Your task to perform on an android device: star an email in the gmail app Image 0: 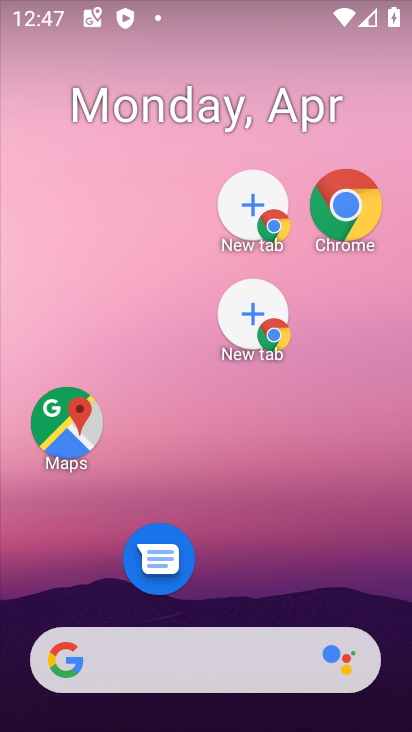
Step 0: drag from (208, 410) to (188, 172)
Your task to perform on an android device: star an email in the gmail app Image 1: 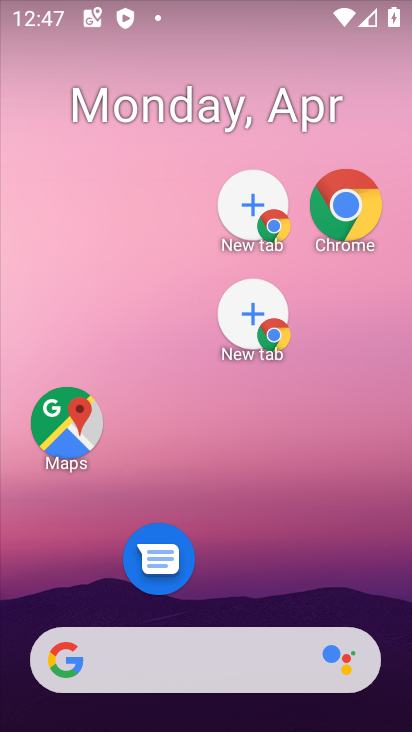
Step 1: drag from (214, 411) to (183, 45)
Your task to perform on an android device: star an email in the gmail app Image 2: 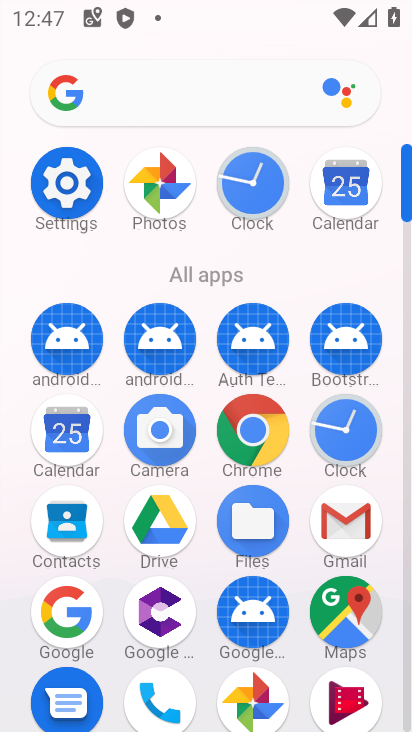
Step 2: click (325, 533)
Your task to perform on an android device: star an email in the gmail app Image 3: 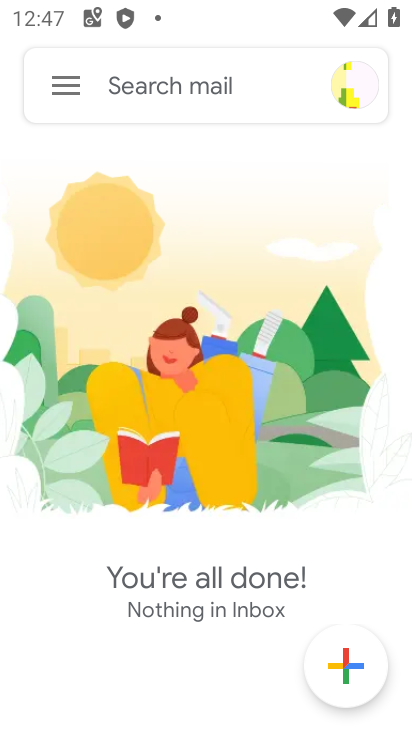
Step 3: click (68, 98)
Your task to perform on an android device: star an email in the gmail app Image 4: 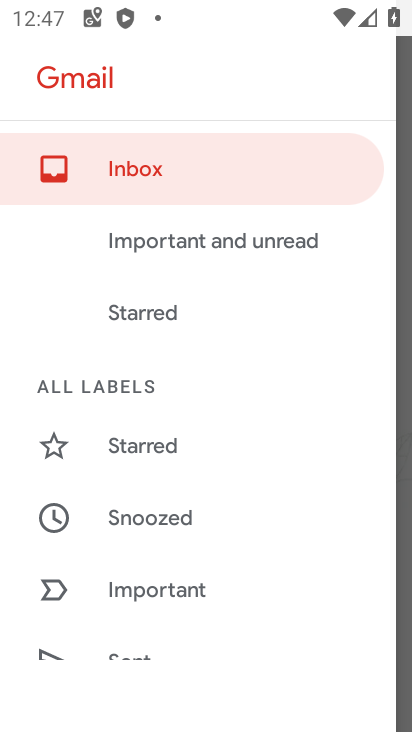
Step 4: drag from (159, 554) to (213, 173)
Your task to perform on an android device: star an email in the gmail app Image 5: 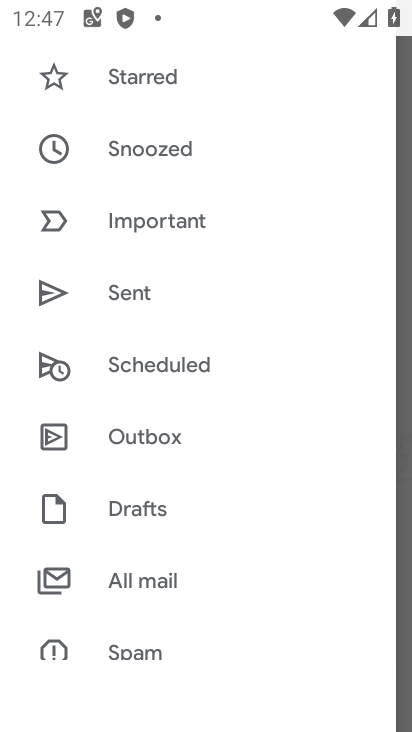
Step 5: click (172, 572)
Your task to perform on an android device: star an email in the gmail app Image 6: 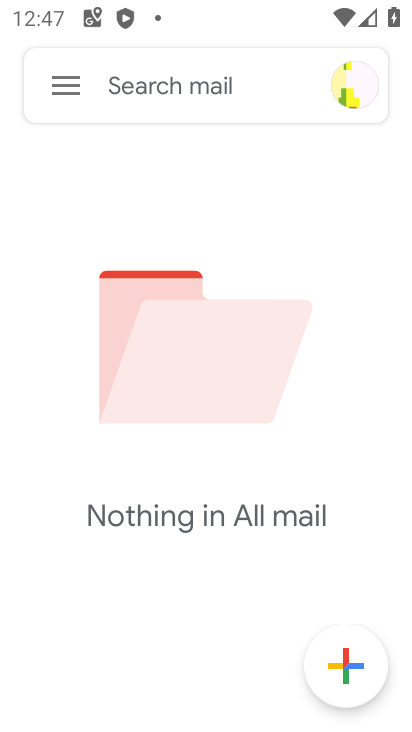
Step 6: task complete